Your task to perform on an android device: Turn on the flashlight Image 0: 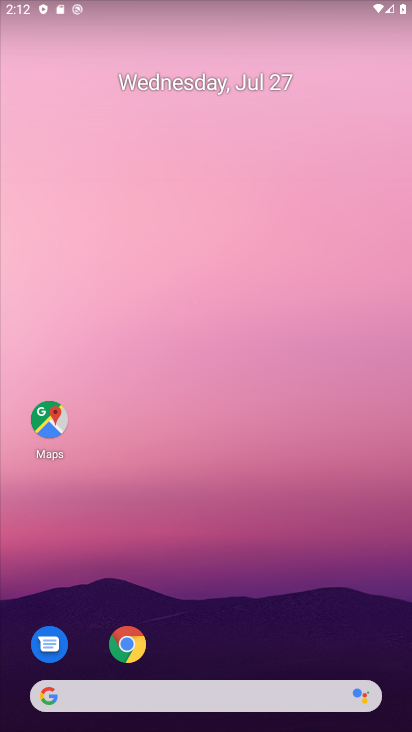
Step 0: drag from (248, 6) to (257, 329)
Your task to perform on an android device: Turn on the flashlight Image 1: 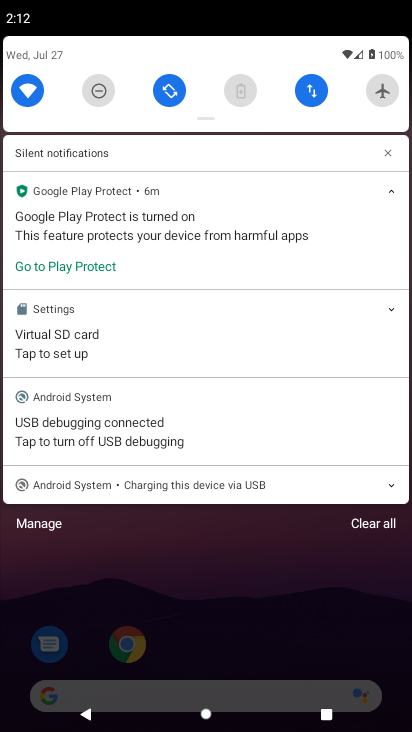
Step 1: drag from (207, 104) to (205, 335)
Your task to perform on an android device: Turn on the flashlight Image 2: 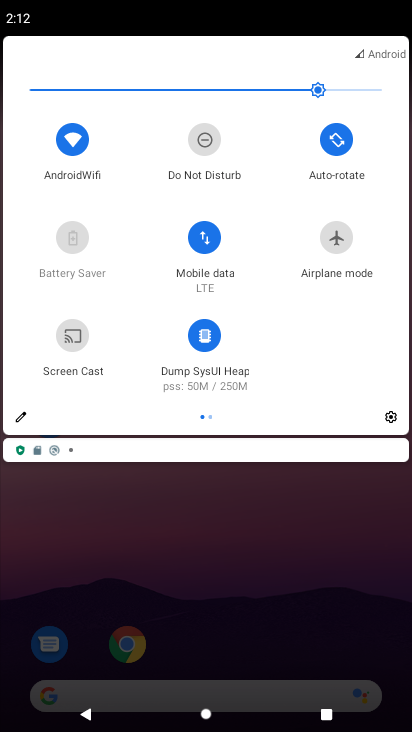
Step 2: click (27, 413)
Your task to perform on an android device: Turn on the flashlight Image 3: 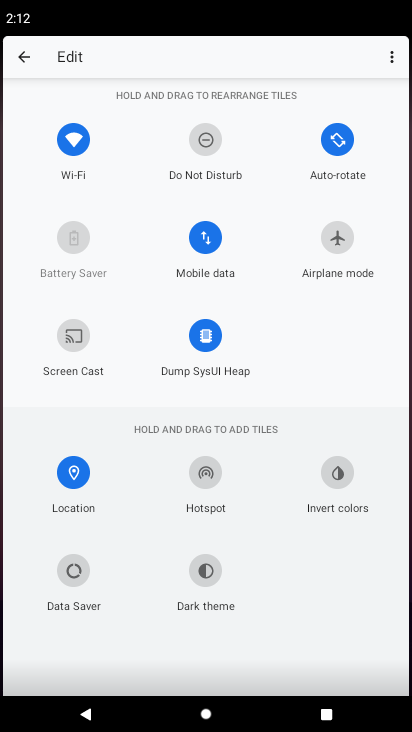
Step 3: task complete